Your task to perform on an android device: Go to Reddit.com Image 0: 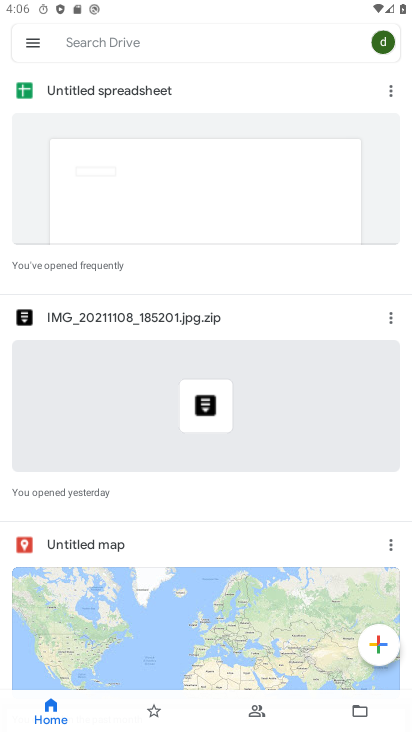
Step 0: press home button
Your task to perform on an android device: Go to Reddit.com Image 1: 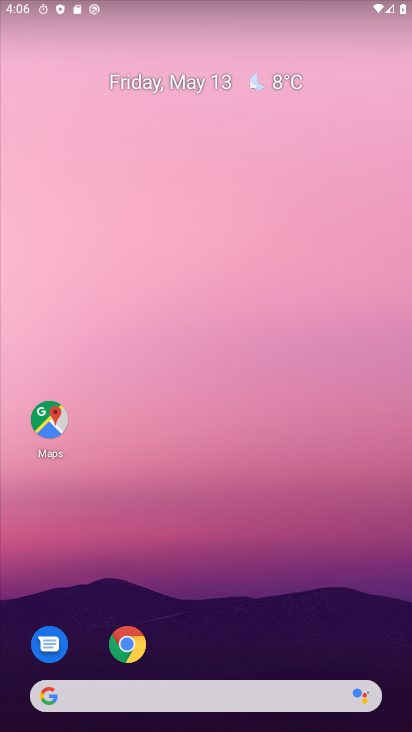
Step 1: click (123, 647)
Your task to perform on an android device: Go to Reddit.com Image 2: 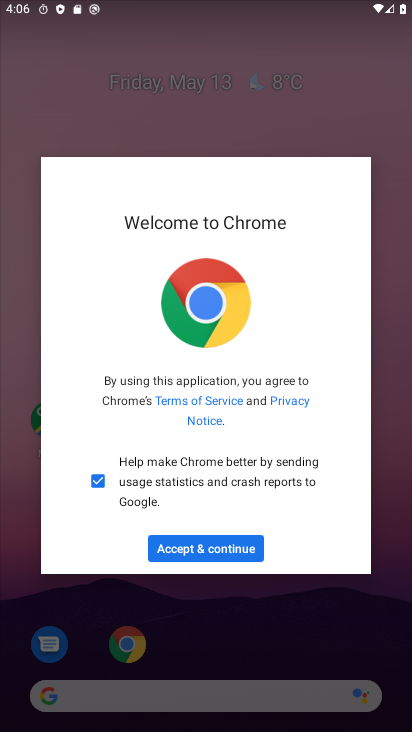
Step 2: click (189, 542)
Your task to perform on an android device: Go to Reddit.com Image 3: 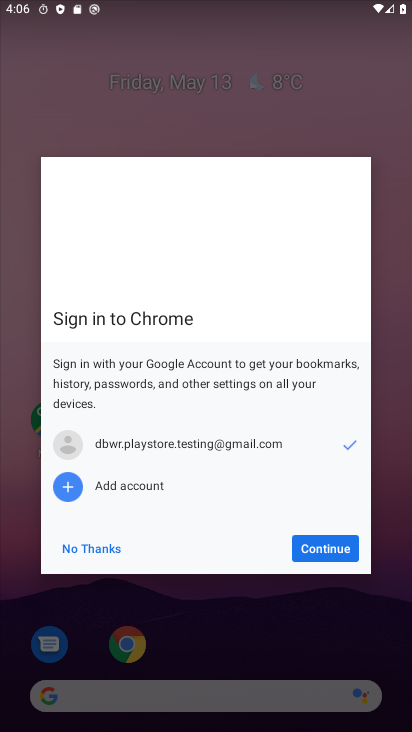
Step 3: click (339, 546)
Your task to perform on an android device: Go to Reddit.com Image 4: 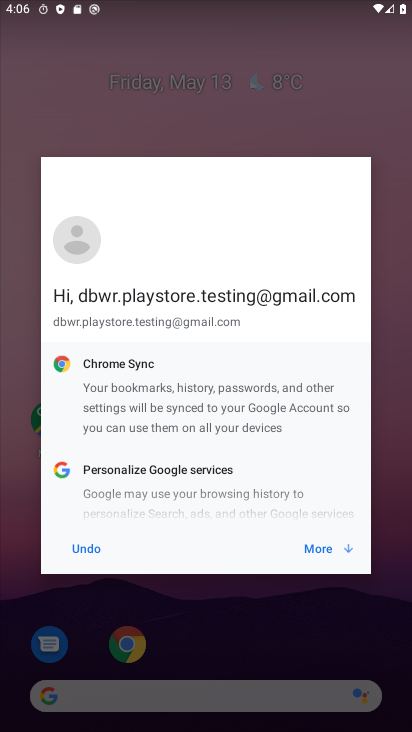
Step 4: click (338, 545)
Your task to perform on an android device: Go to Reddit.com Image 5: 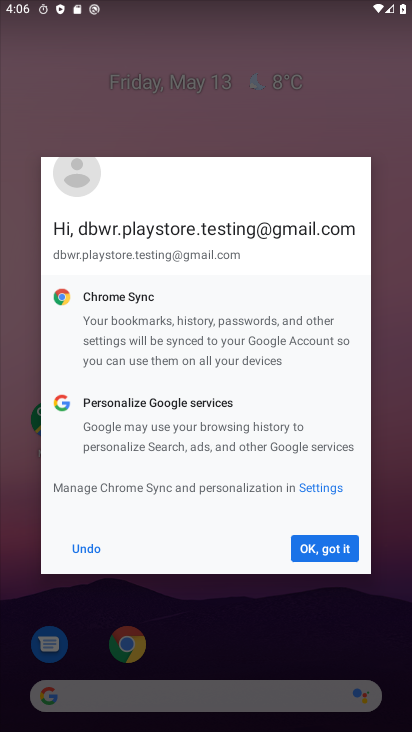
Step 5: click (338, 545)
Your task to perform on an android device: Go to Reddit.com Image 6: 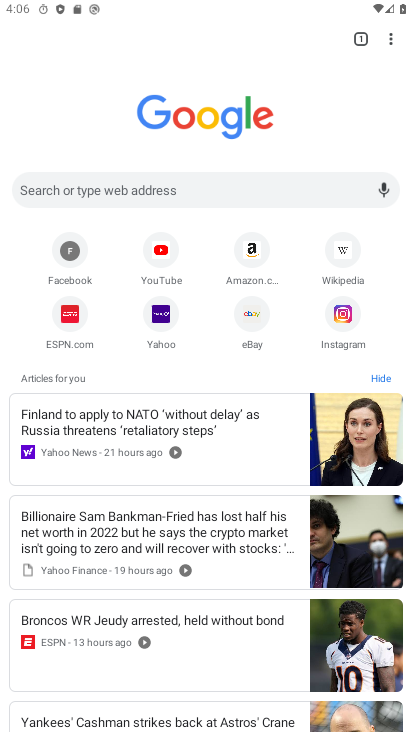
Step 6: click (282, 187)
Your task to perform on an android device: Go to Reddit.com Image 7: 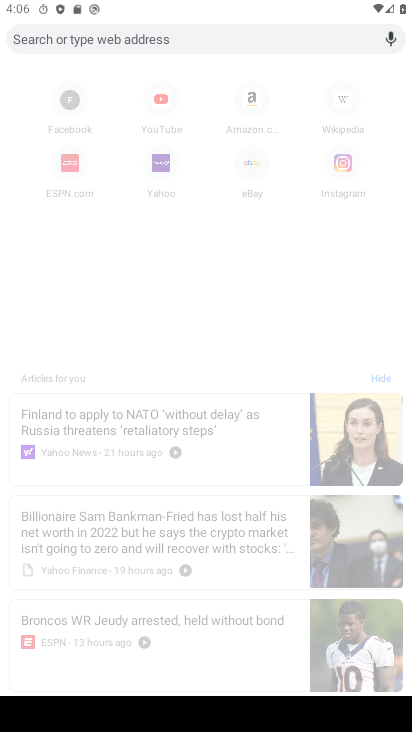
Step 7: type "reddit"
Your task to perform on an android device: Go to Reddit.com Image 8: 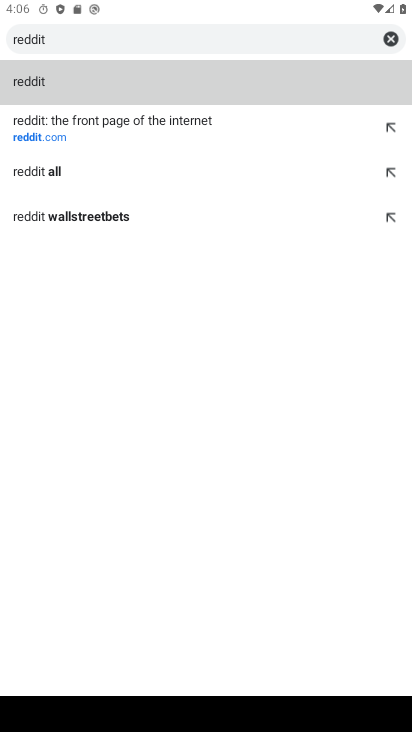
Step 8: click (41, 135)
Your task to perform on an android device: Go to Reddit.com Image 9: 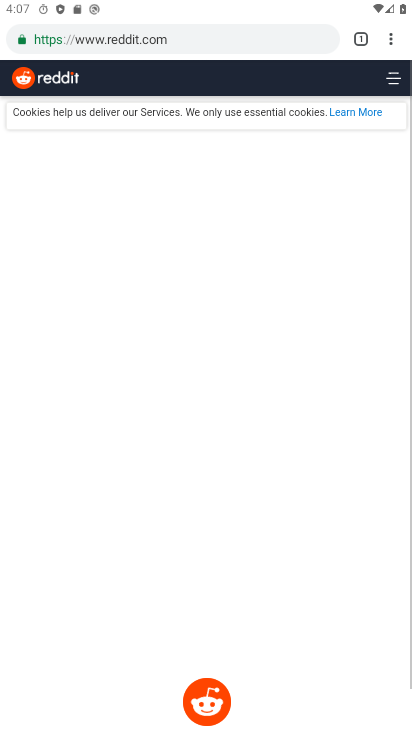
Step 9: task complete